Your task to perform on an android device: open chrome and create a bookmark for the current page Image 0: 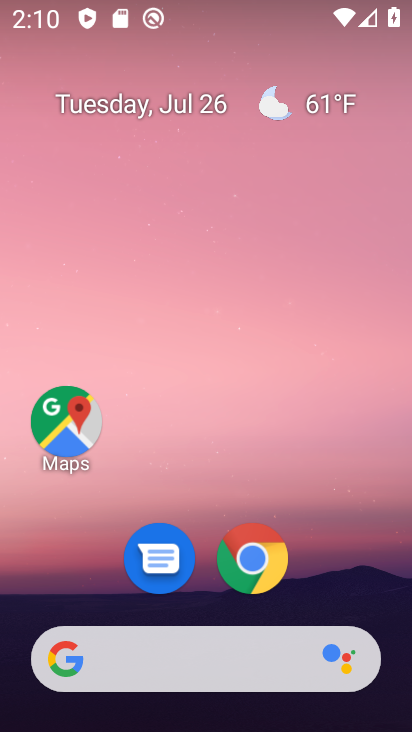
Step 0: click (258, 551)
Your task to perform on an android device: open chrome and create a bookmark for the current page Image 1: 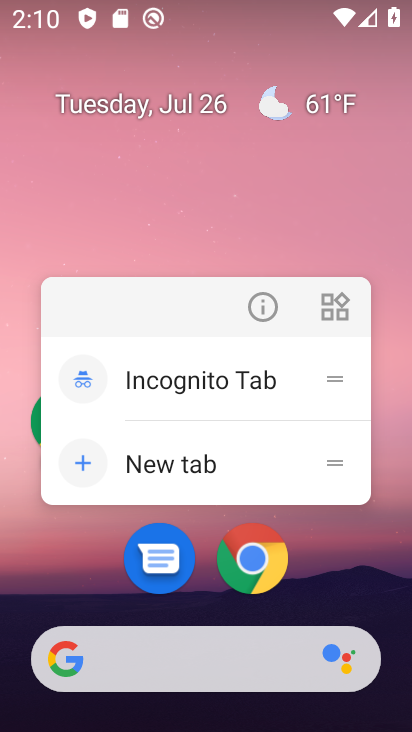
Step 1: click (257, 563)
Your task to perform on an android device: open chrome and create a bookmark for the current page Image 2: 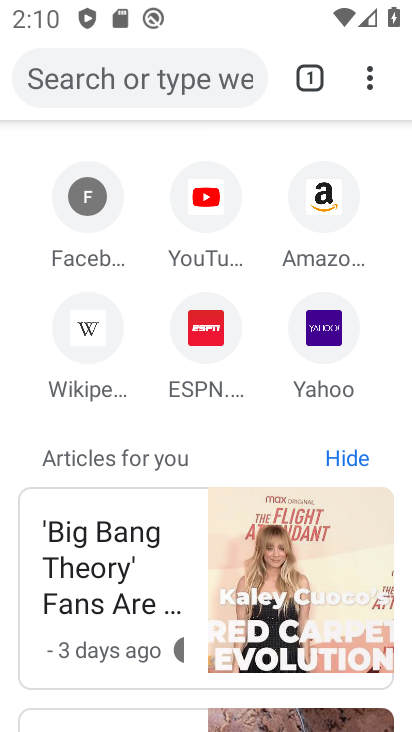
Step 2: task complete